Your task to perform on an android device: Search for "usb-c to usb-a" on newegg.com, select the first entry, and add it to the cart. Image 0: 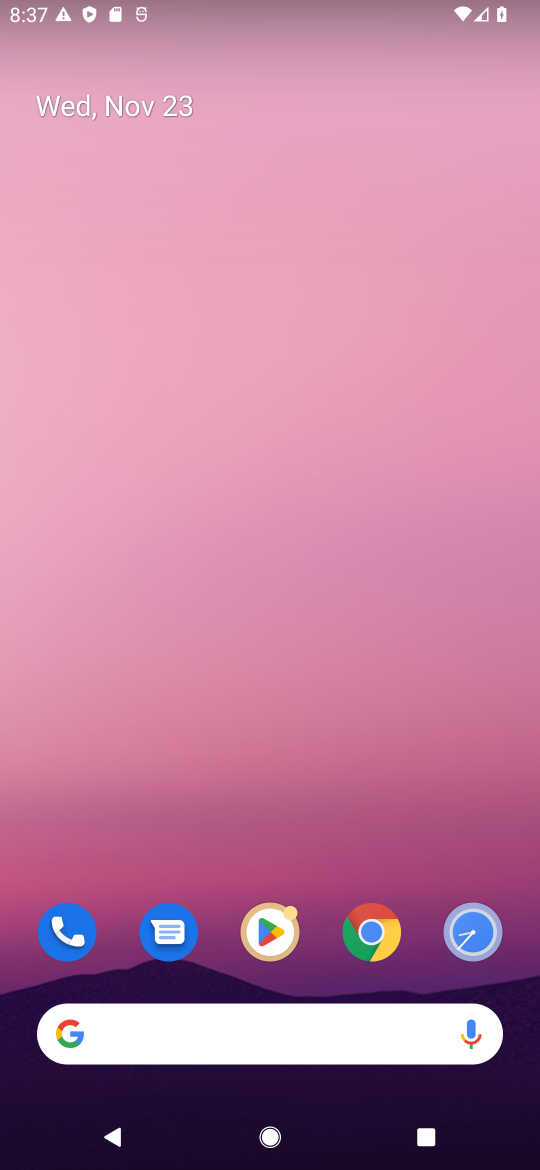
Step 0: click (380, 950)
Your task to perform on an android device: Search for "usb-c to usb-a" on newegg.com, select the first entry, and add it to the cart. Image 1: 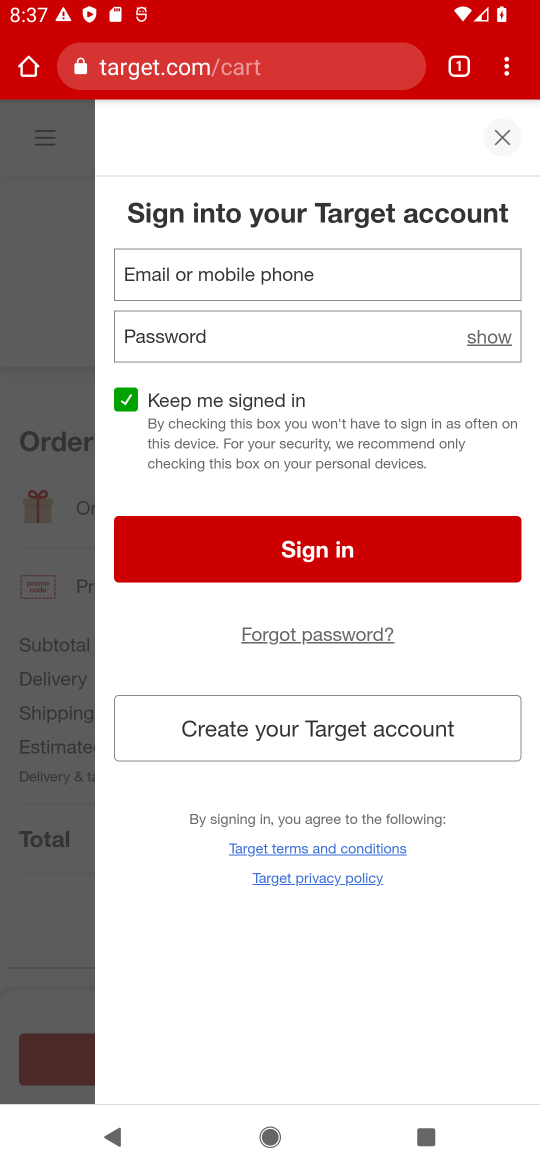
Step 1: click (248, 66)
Your task to perform on an android device: Search for "usb-c to usb-a" on newegg.com, select the first entry, and add it to the cart. Image 2: 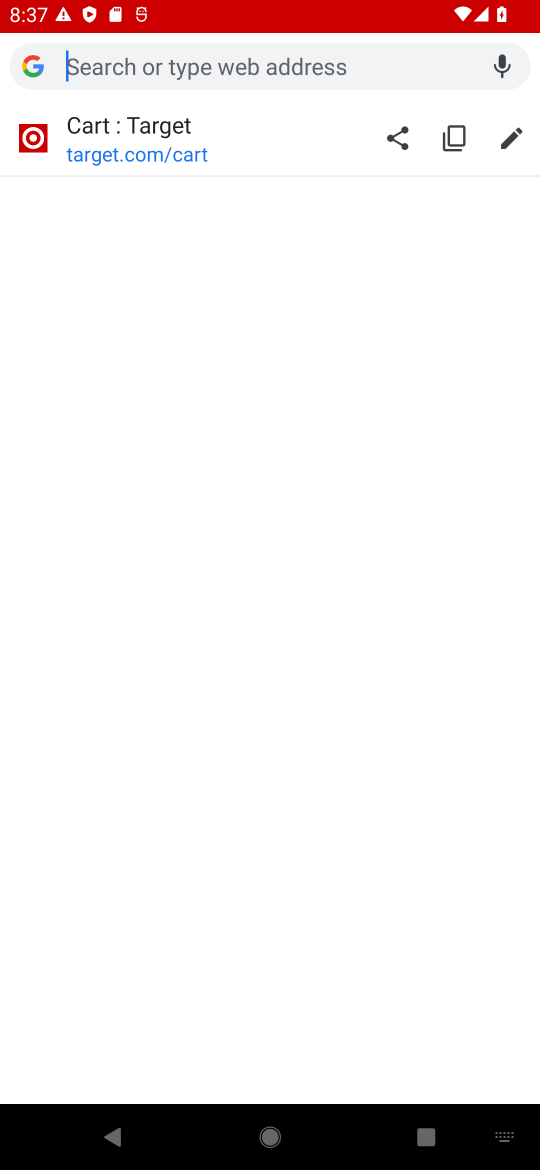
Step 2: type "newegg.com"
Your task to perform on an android device: Search for "usb-c to usb-a" on newegg.com, select the first entry, and add it to the cart. Image 3: 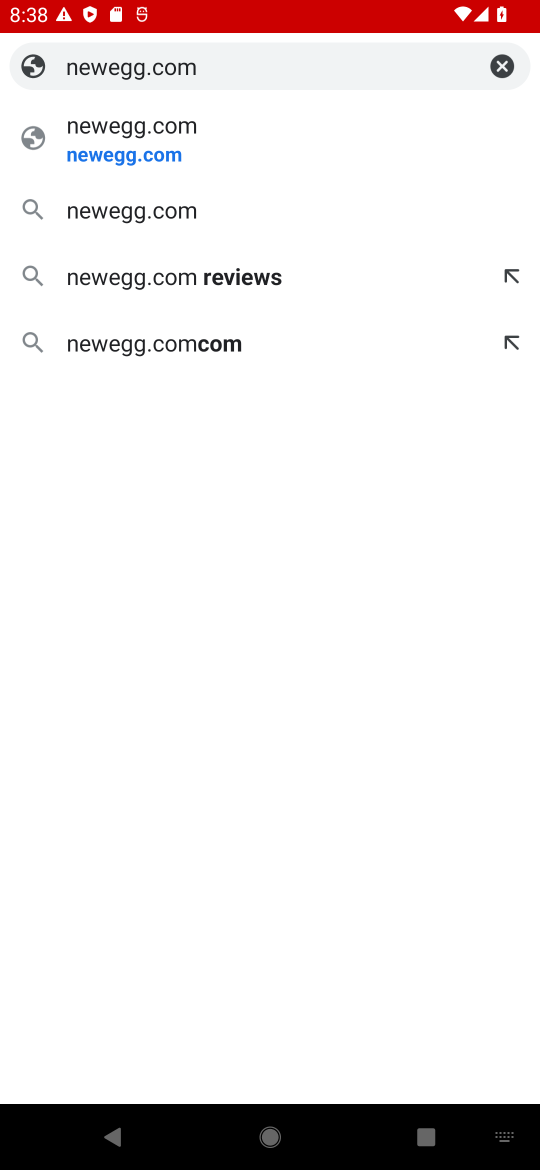
Step 3: click (194, 141)
Your task to perform on an android device: Search for "usb-c to usb-a" on newegg.com, select the first entry, and add it to the cart. Image 4: 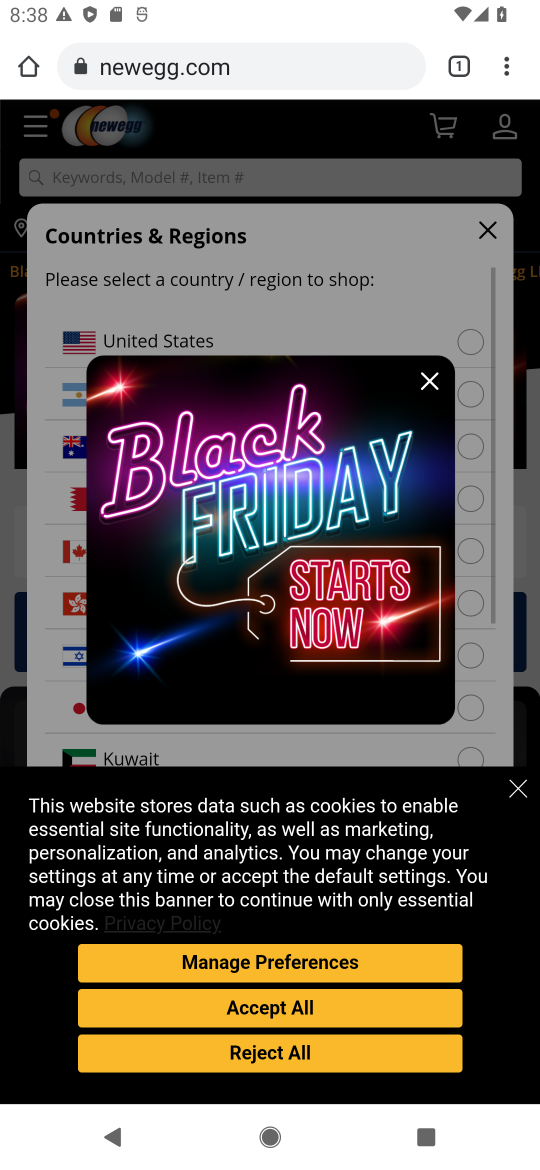
Step 4: click (313, 1010)
Your task to perform on an android device: Search for "usb-c to usb-a" on newegg.com, select the first entry, and add it to the cart. Image 5: 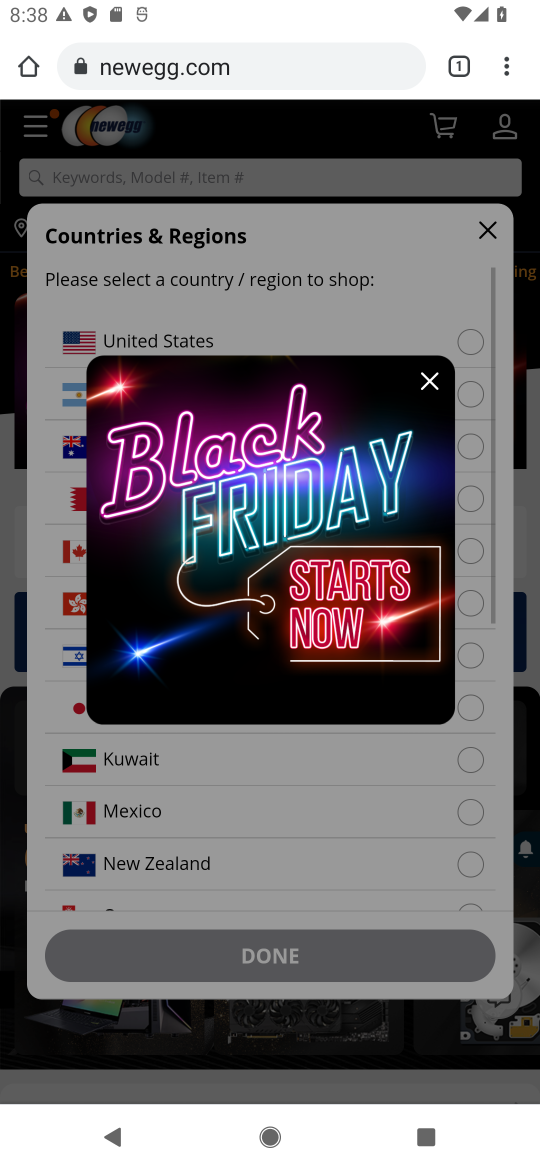
Step 5: click (431, 385)
Your task to perform on an android device: Search for "usb-c to usb-a" on newegg.com, select the first entry, and add it to the cart. Image 6: 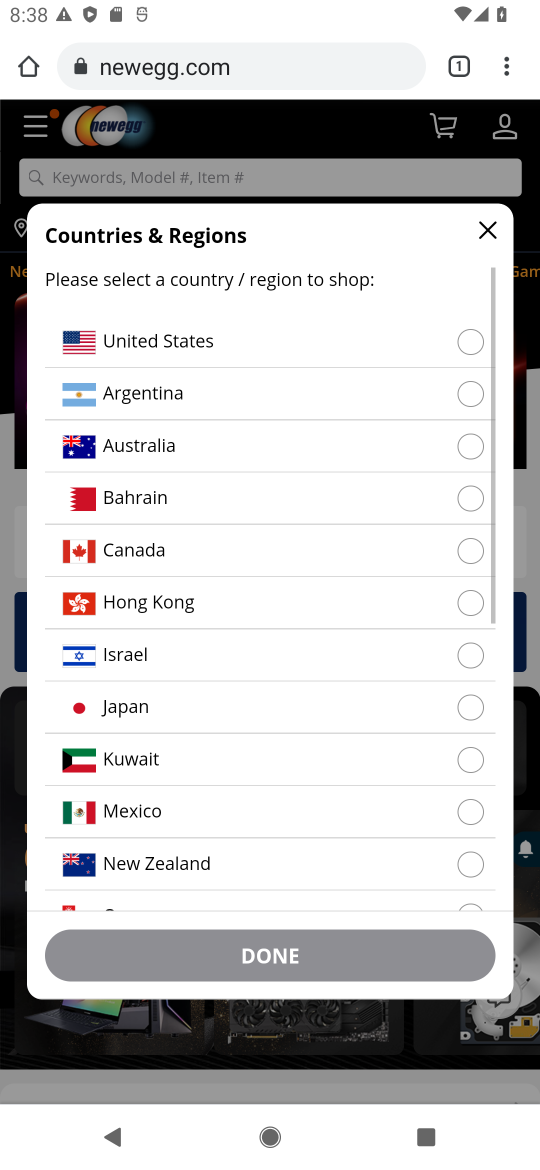
Step 6: click (500, 224)
Your task to perform on an android device: Search for "usb-c to usb-a" on newegg.com, select the first entry, and add it to the cart. Image 7: 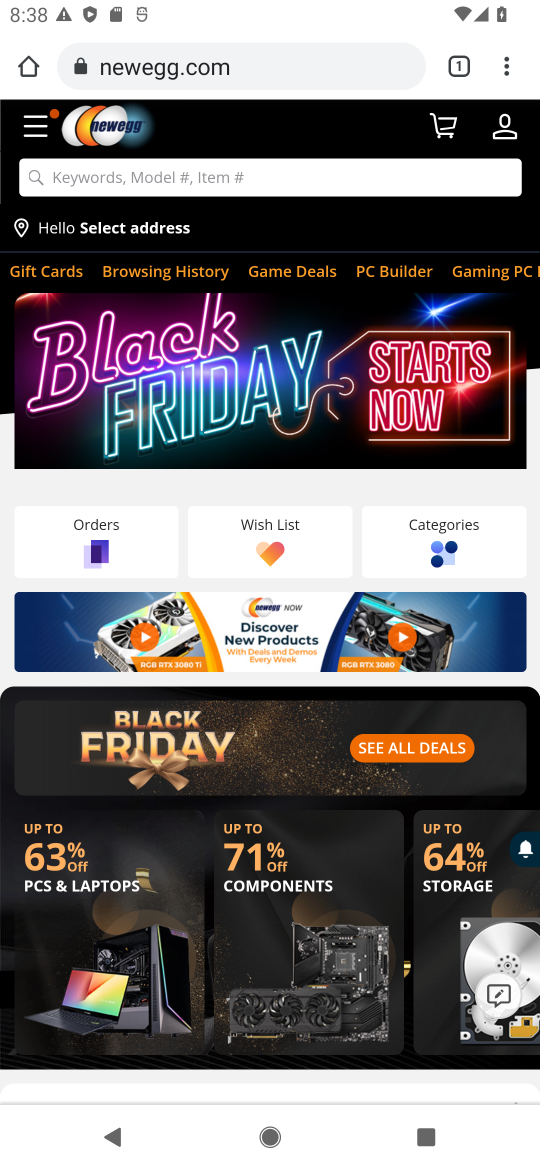
Step 7: click (240, 182)
Your task to perform on an android device: Search for "usb-c to usb-a" on newegg.com, select the first entry, and add it to the cart. Image 8: 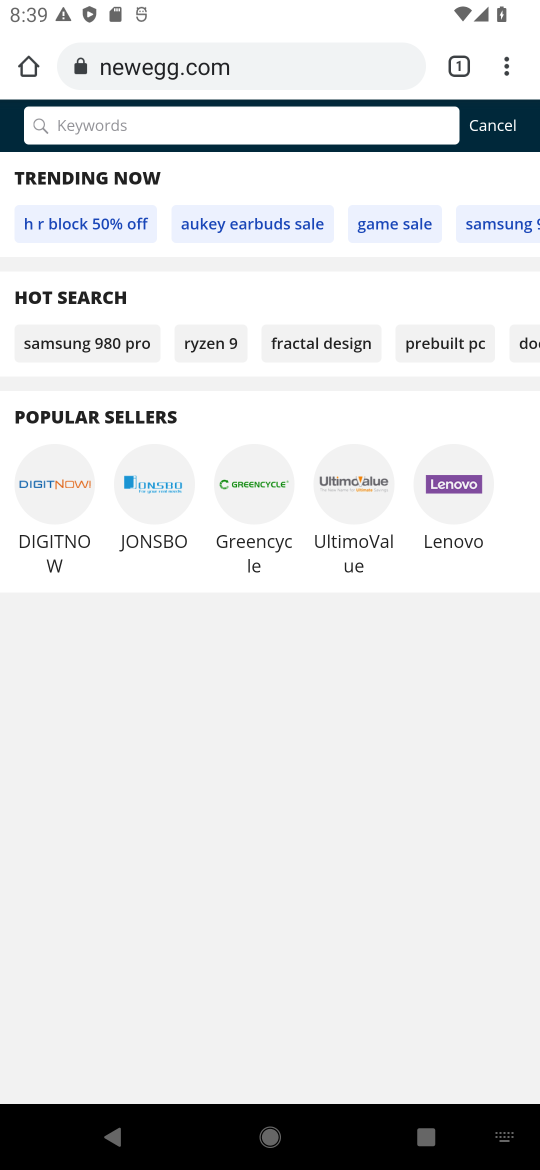
Step 8: type "usb-c to usb-a"
Your task to perform on an android device: Search for "usb-c to usb-a" on newegg.com, select the first entry, and add it to the cart. Image 9: 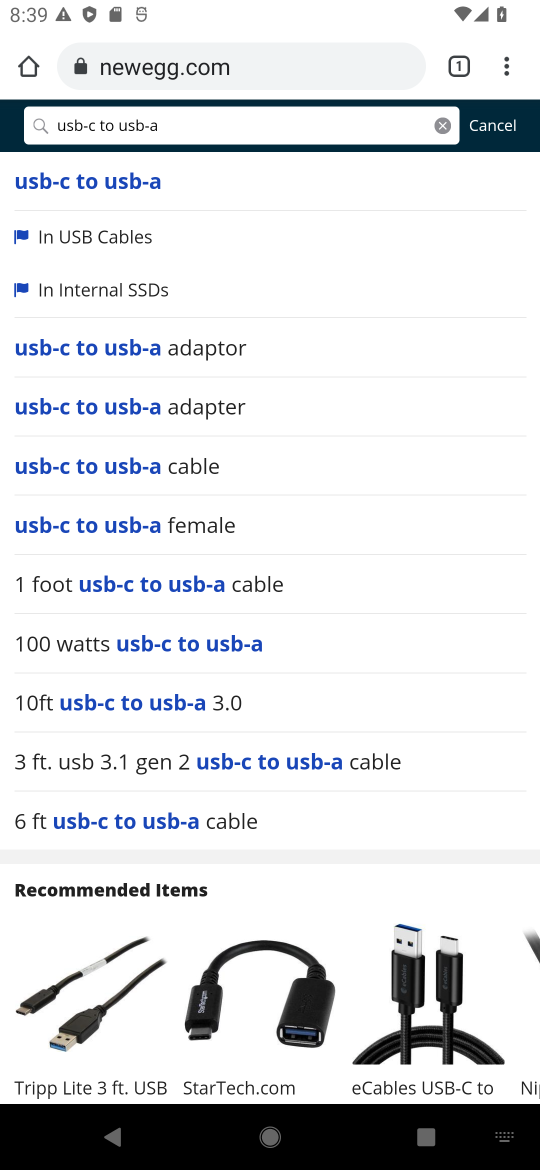
Step 9: click (332, 197)
Your task to perform on an android device: Search for "usb-c to usb-a" on newegg.com, select the first entry, and add it to the cart. Image 10: 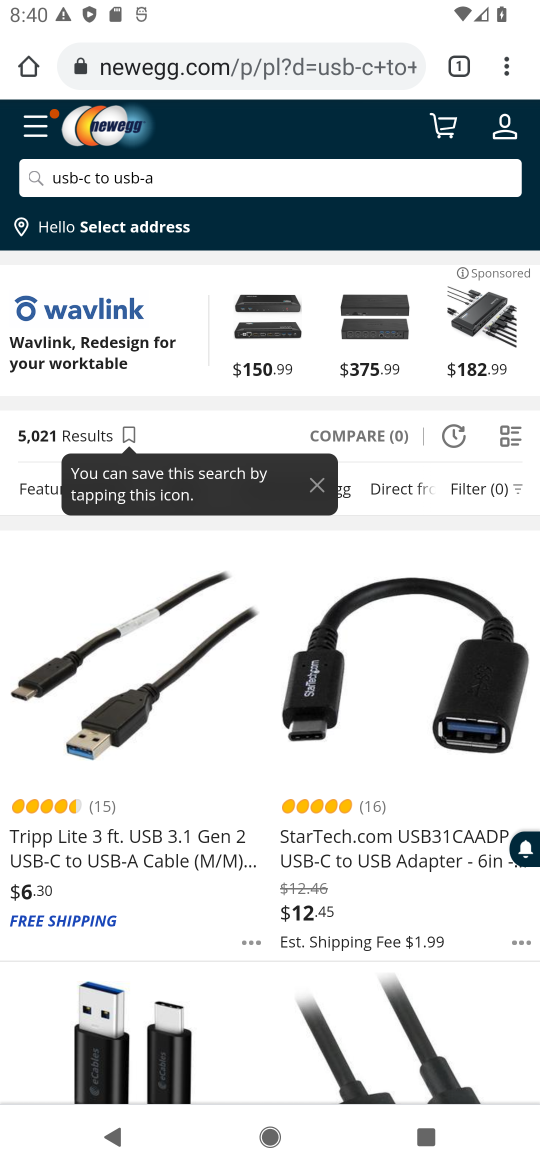
Step 10: click (146, 819)
Your task to perform on an android device: Search for "usb-c to usb-a" on newegg.com, select the first entry, and add it to the cart. Image 11: 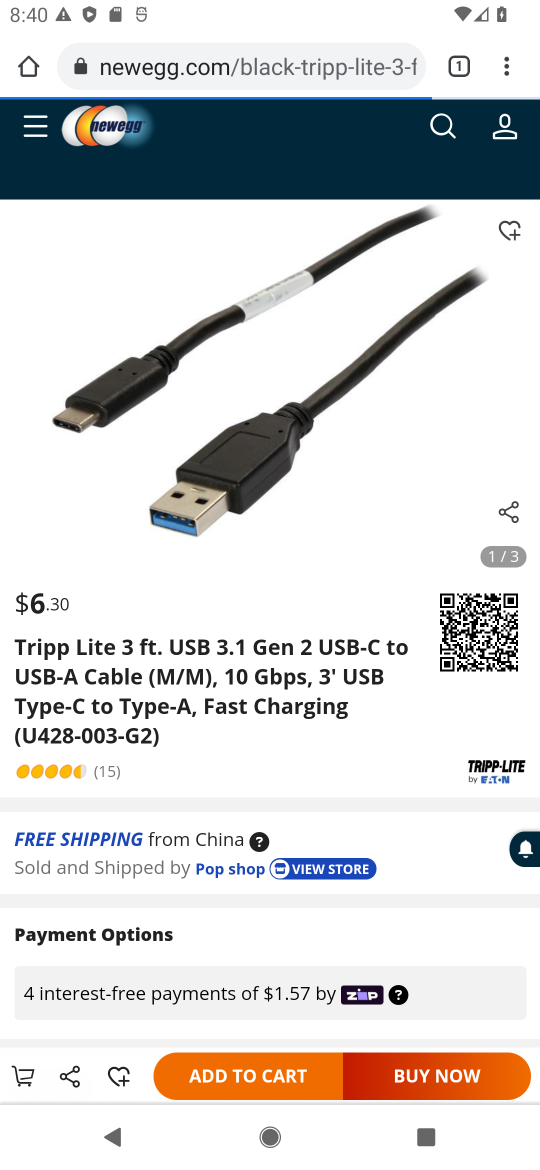
Step 11: click (255, 1071)
Your task to perform on an android device: Search for "usb-c to usb-a" on newegg.com, select the first entry, and add it to the cart. Image 12: 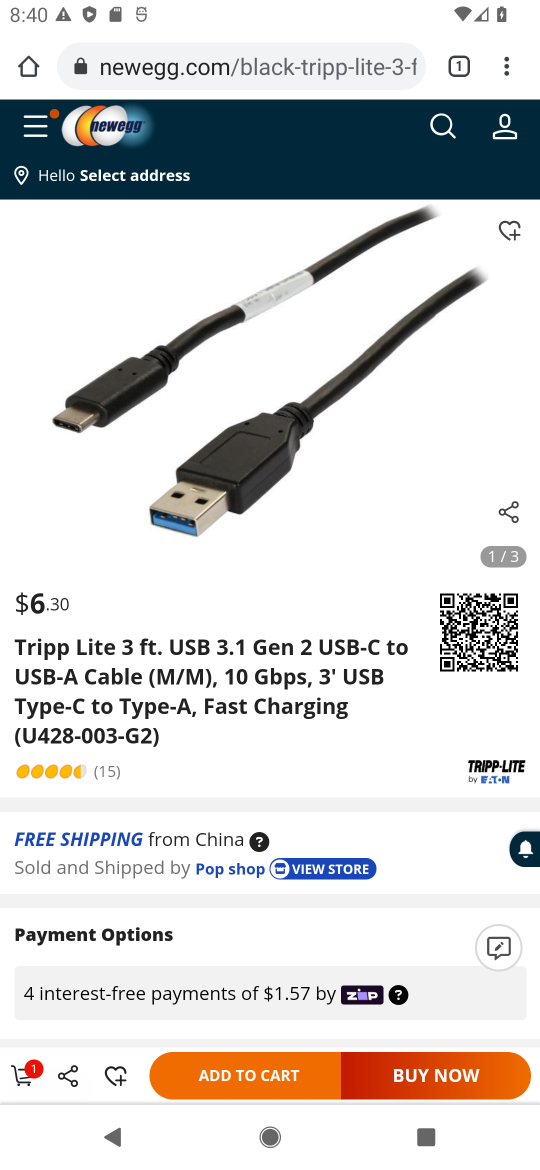
Step 12: task complete